Your task to perform on an android device: open app "Gmail" Image 0: 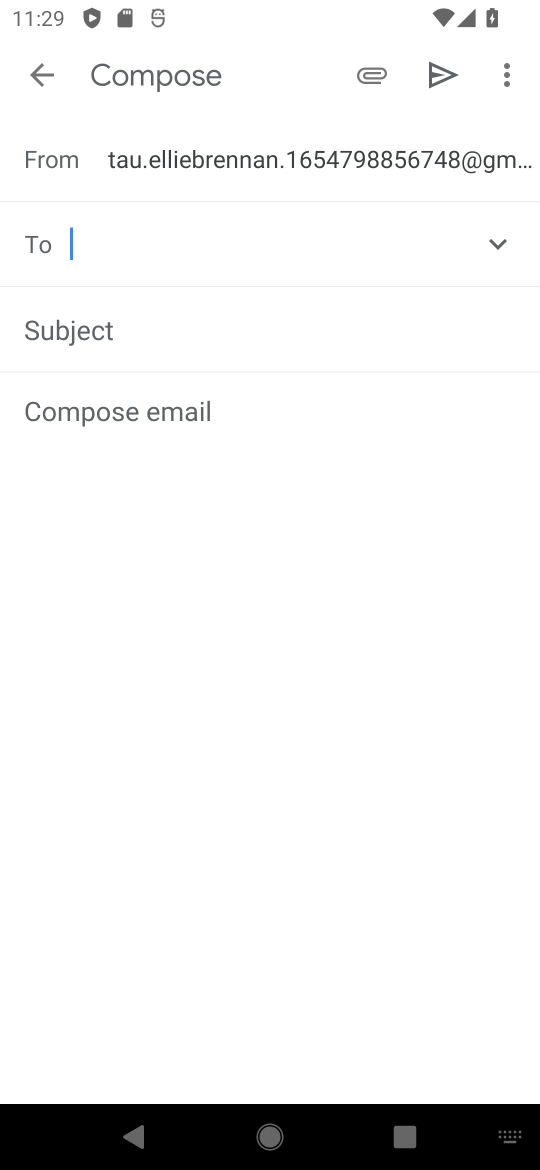
Step 0: press home button
Your task to perform on an android device: open app "Gmail" Image 1: 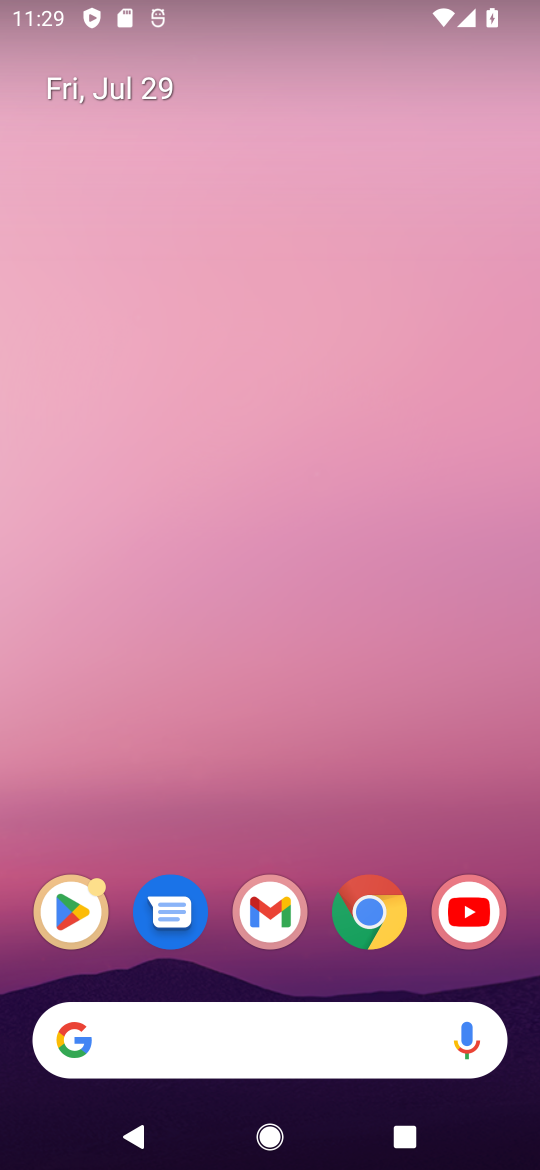
Step 1: click (55, 905)
Your task to perform on an android device: open app "Gmail" Image 2: 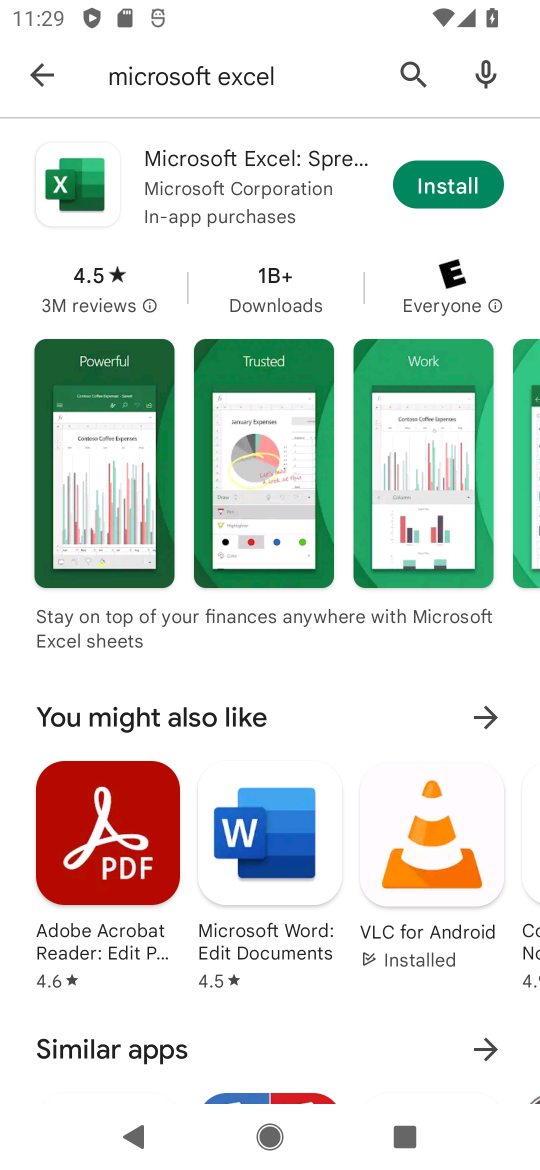
Step 2: click (404, 76)
Your task to perform on an android device: open app "Gmail" Image 3: 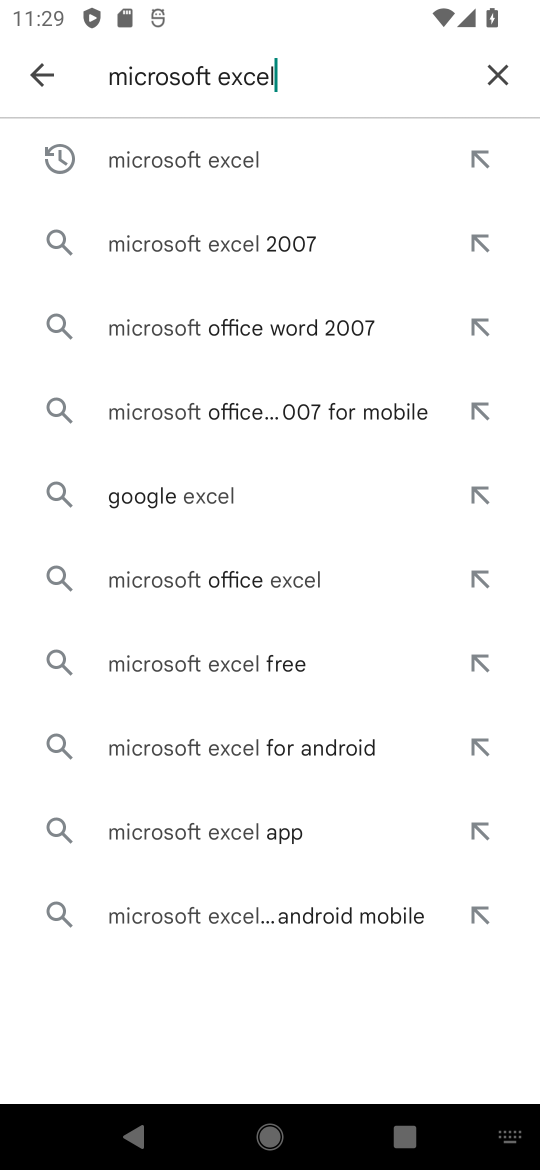
Step 3: click (511, 58)
Your task to perform on an android device: open app "Gmail" Image 4: 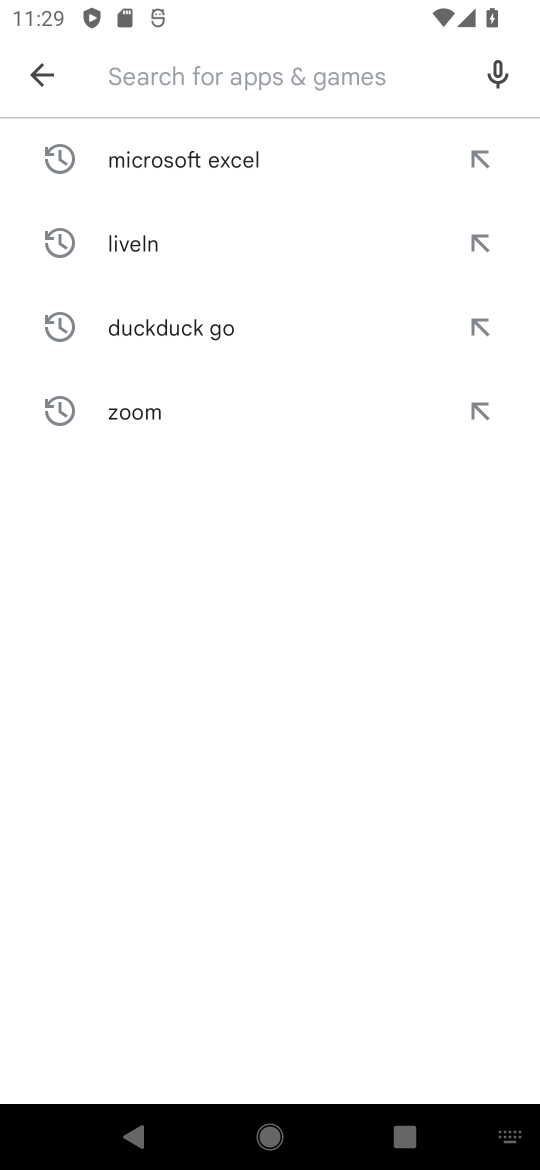
Step 4: type "gmail"
Your task to perform on an android device: open app "Gmail" Image 5: 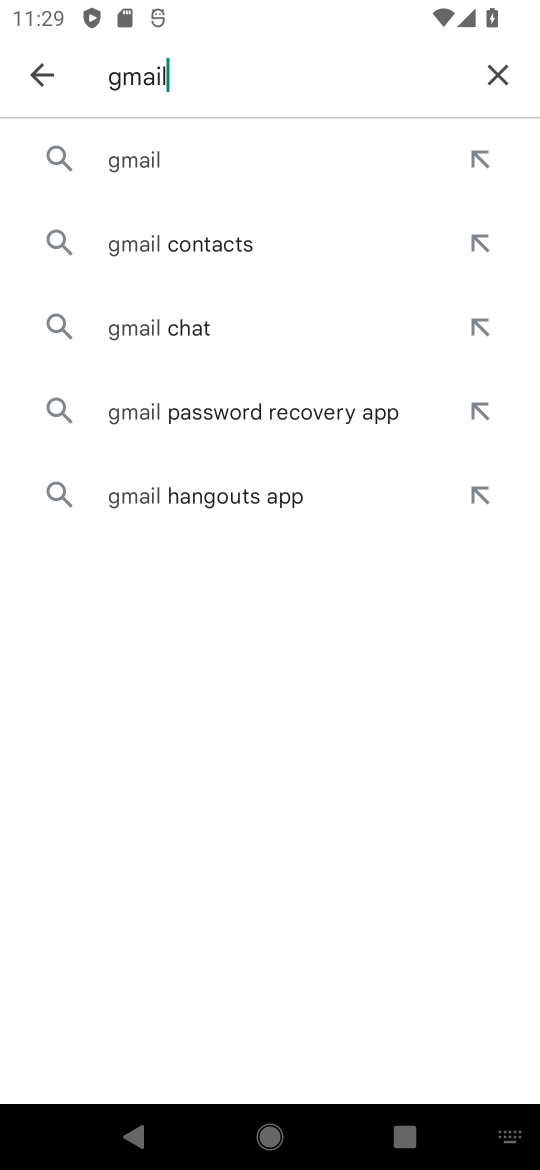
Step 5: click (223, 200)
Your task to perform on an android device: open app "Gmail" Image 6: 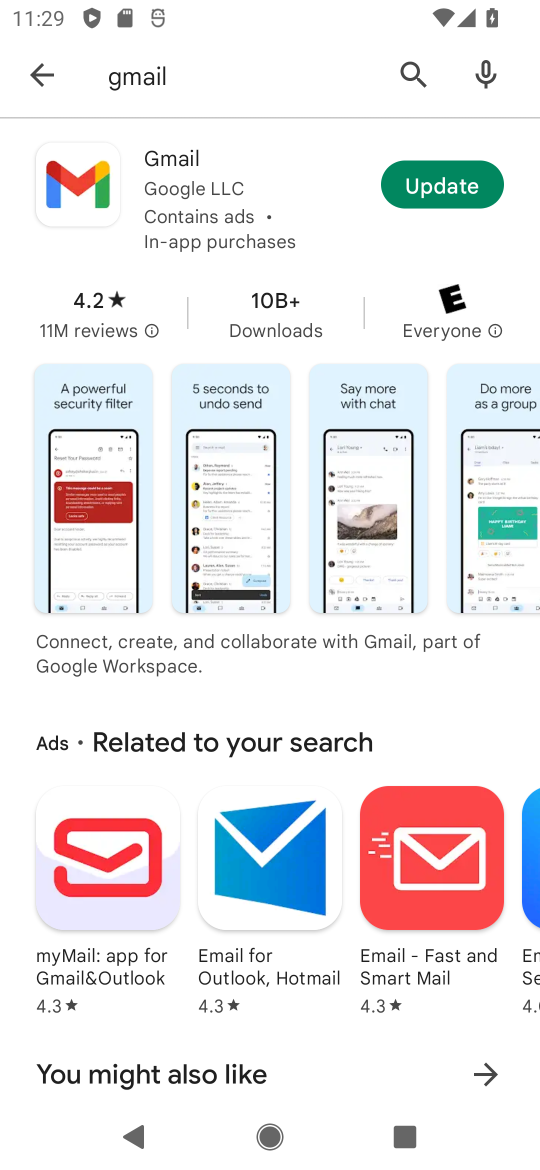
Step 6: click (474, 189)
Your task to perform on an android device: open app "Gmail" Image 7: 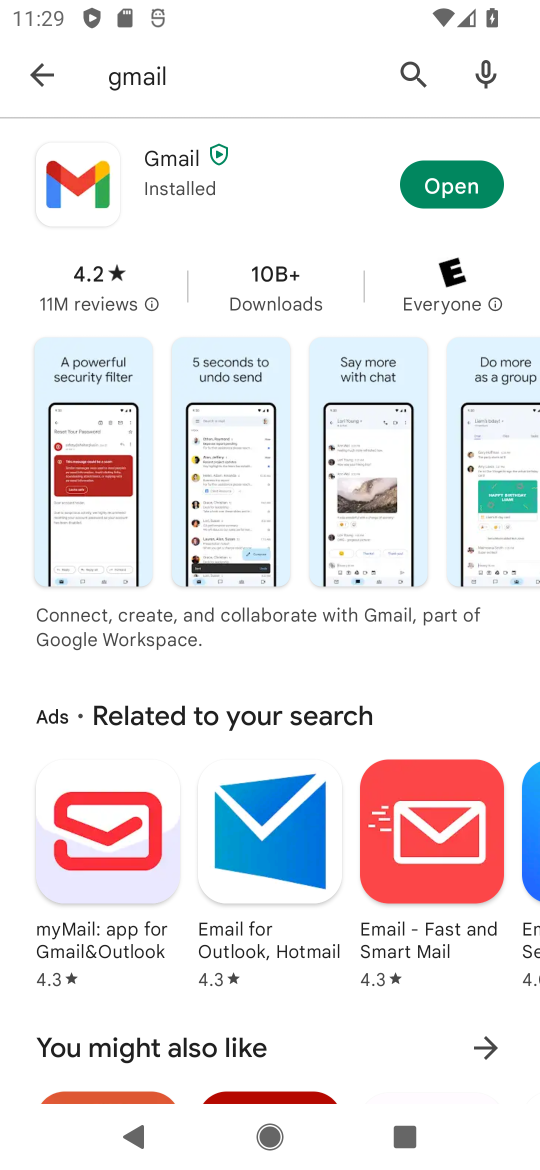
Step 7: task complete